Your task to perform on an android device: change the clock display to digital Image 0: 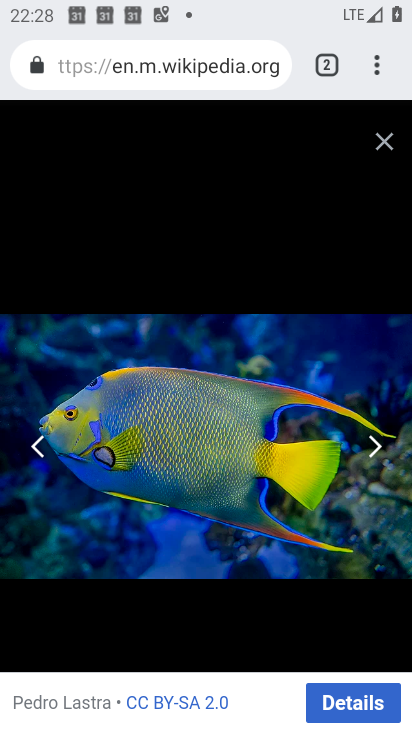
Step 0: press home button
Your task to perform on an android device: change the clock display to digital Image 1: 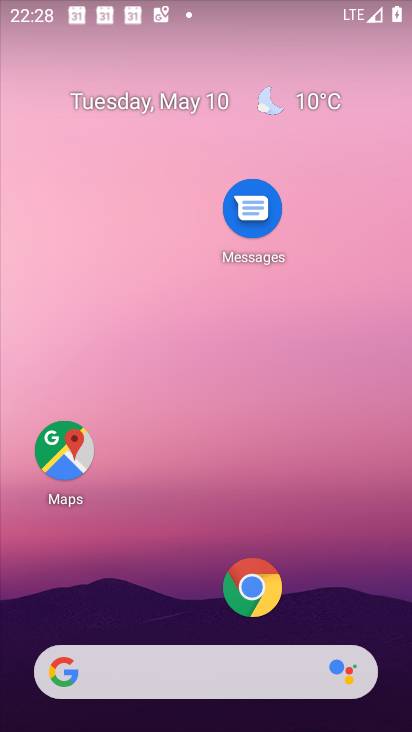
Step 1: drag from (163, 550) to (321, 2)
Your task to perform on an android device: change the clock display to digital Image 2: 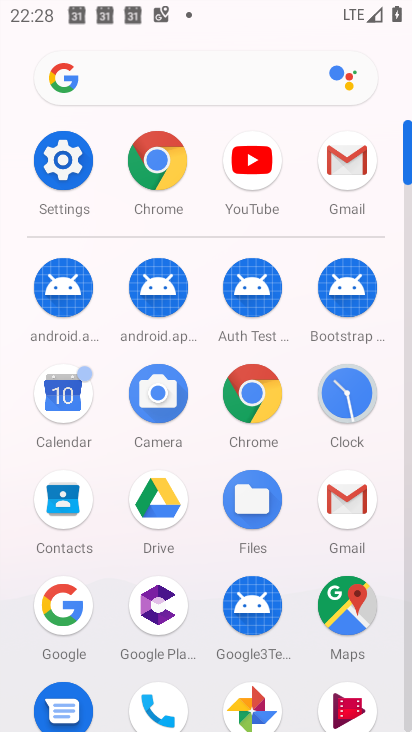
Step 2: click (349, 391)
Your task to perform on an android device: change the clock display to digital Image 3: 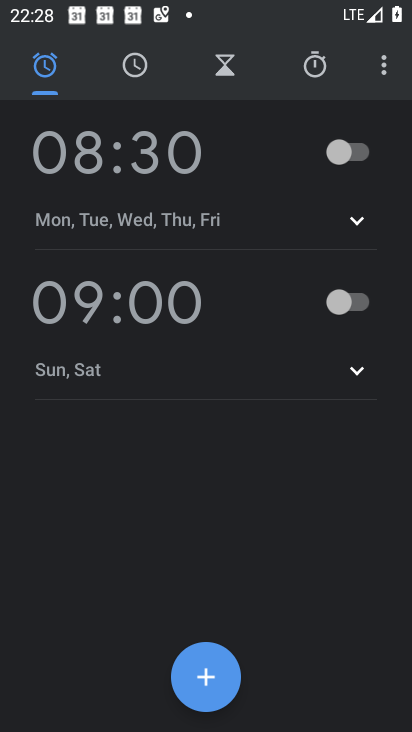
Step 3: click (398, 62)
Your task to perform on an android device: change the clock display to digital Image 4: 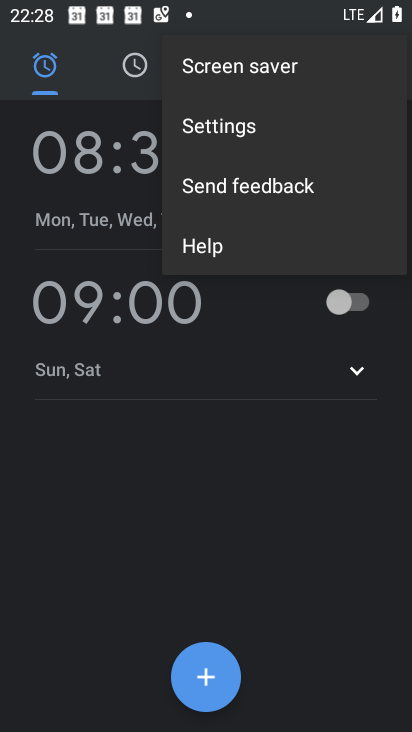
Step 4: click (238, 140)
Your task to perform on an android device: change the clock display to digital Image 5: 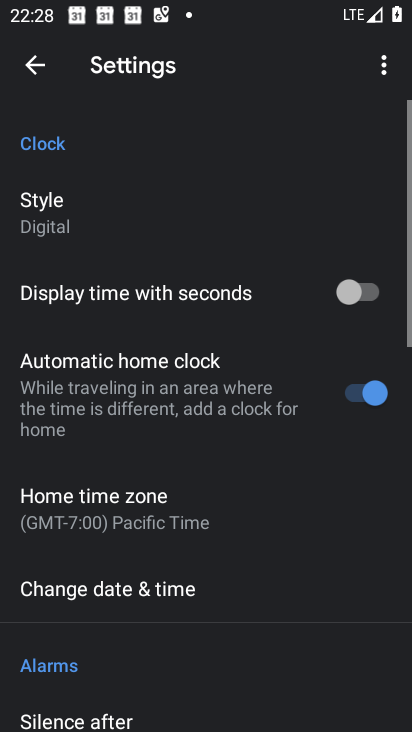
Step 5: click (92, 231)
Your task to perform on an android device: change the clock display to digital Image 6: 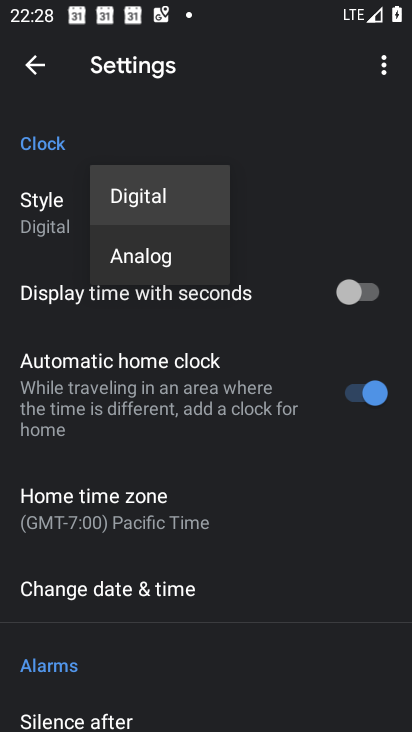
Step 6: task complete